Your task to perform on an android device: Open the stopwatch Image 0: 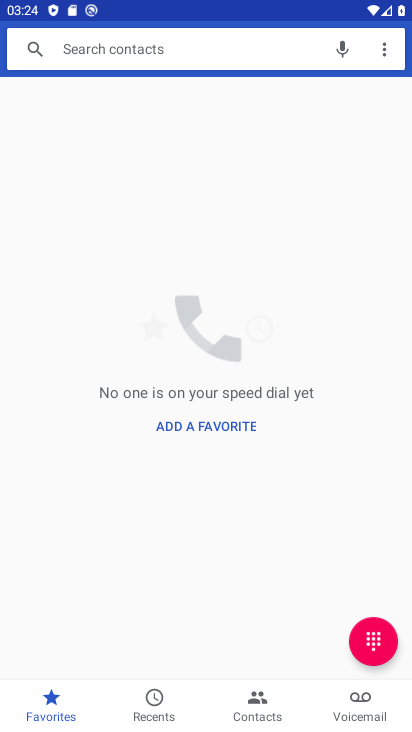
Step 0: press home button
Your task to perform on an android device: Open the stopwatch Image 1: 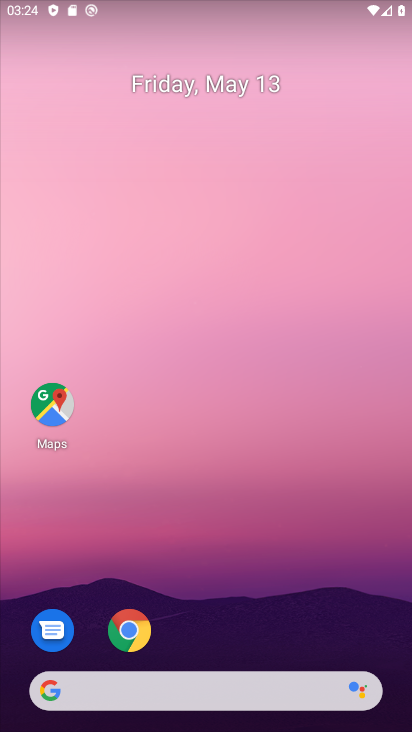
Step 1: drag from (213, 651) to (160, 23)
Your task to perform on an android device: Open the stopwatch Image 2: 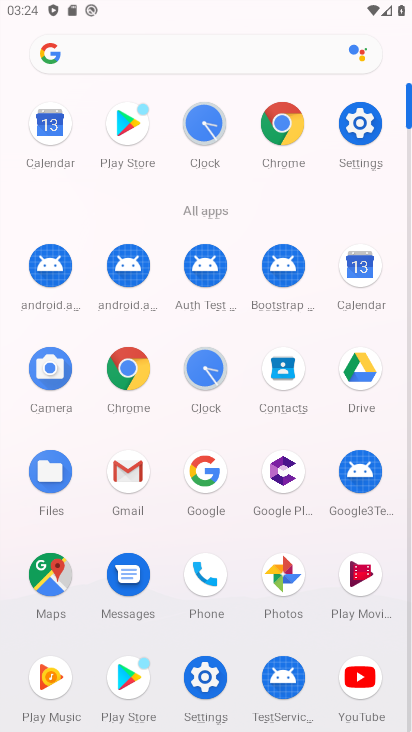
Step 2: click (200, 385)
Your task to perform on an android device: Open the stopwatch Image 3: 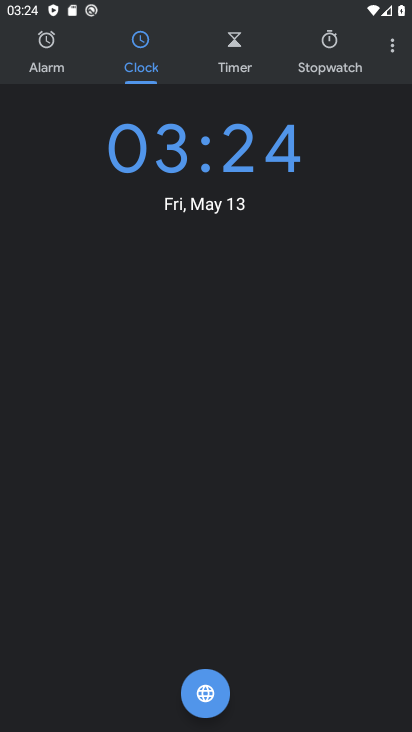
Step 3: click (316, 55)
Your task to perform on an android device: Open the stopwatch Image 4: 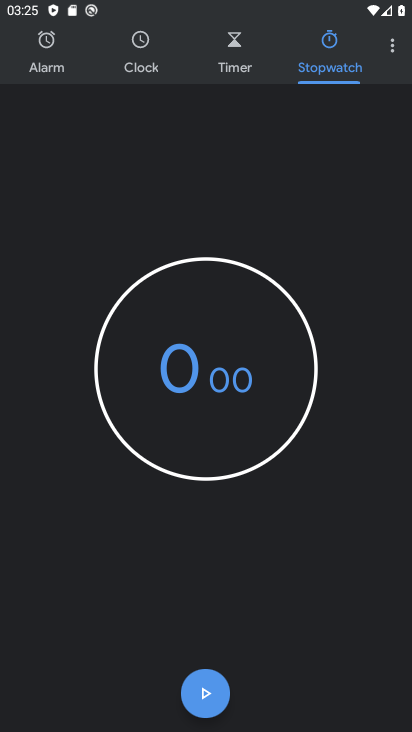
Step 4: task complete